Your task to perform on an android device: Search for vegetarian restaurants on Maps Image 0: 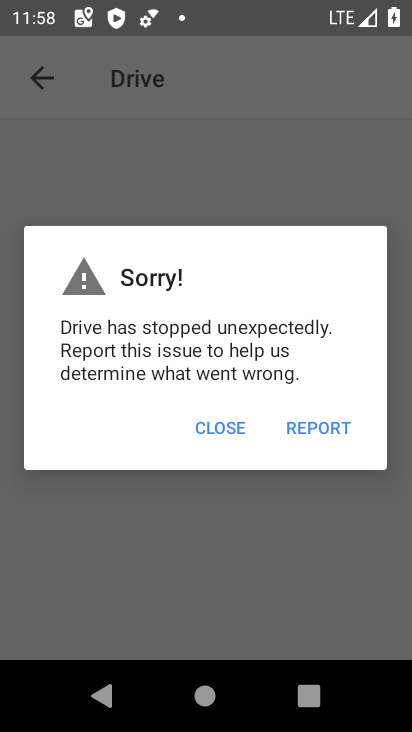
Step 0: press home button
Your task to perform on an android device: Search for vegetarian restaurants on Maps Image 1: 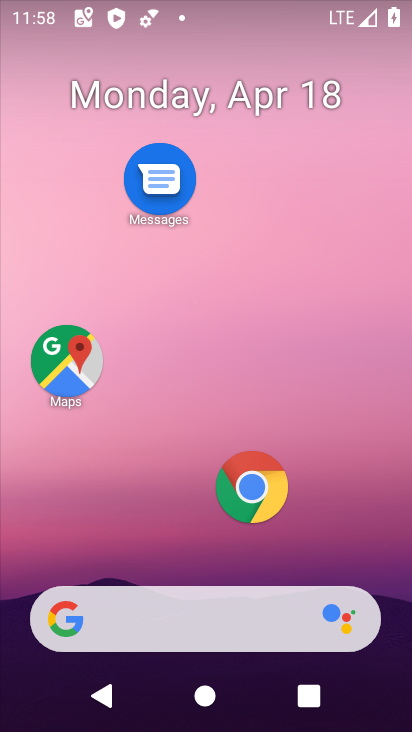
Step 1: click (59, 356)
Your task to perform on an android device: Search for vegetarian restaurants on Maps Image 2: 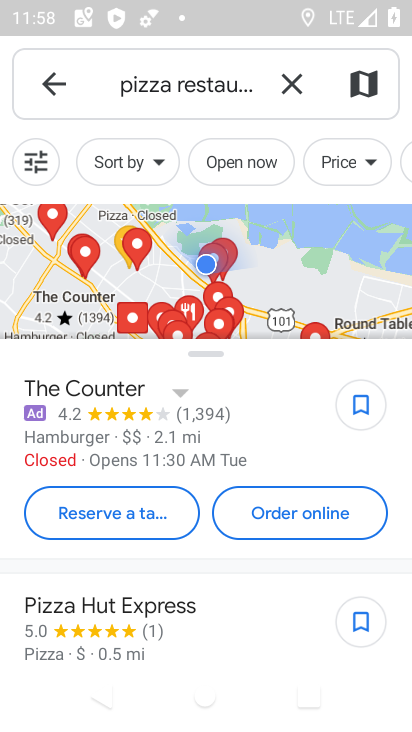
Step 2: click (292, 75)
Your task to perform on an android device: Search for vegetarian restaurants on Maps Image 3: 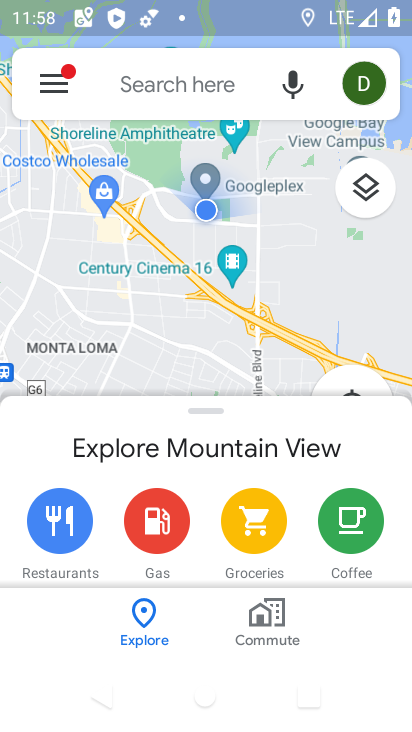
Step 3: click (201, 89)
Your task to perform on an android device: Search for vegetarian restaurants on Maps Image 4: 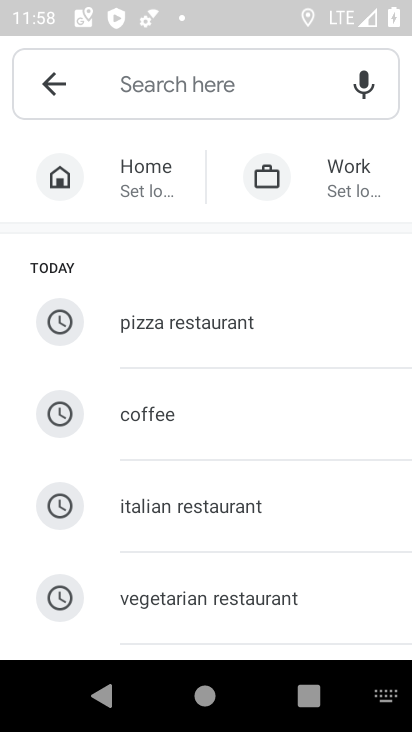
Step 4: click (194, 600)
Your task to perform on an android device: Search for vegetarian restaurants on Maps Image 5: 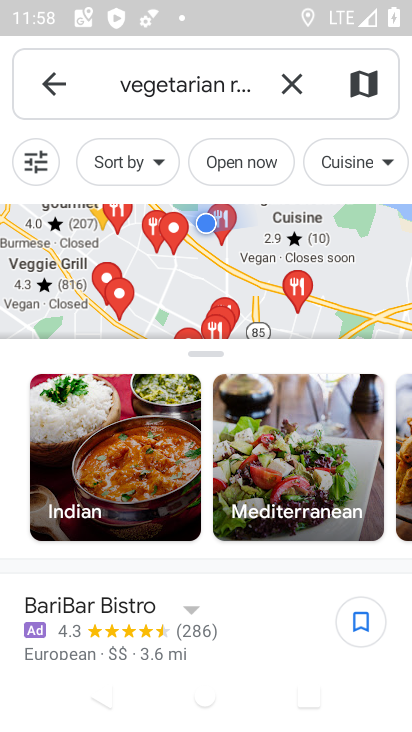
Step 5: task complete